Your task to perform on an android device: check data usage Image 0: 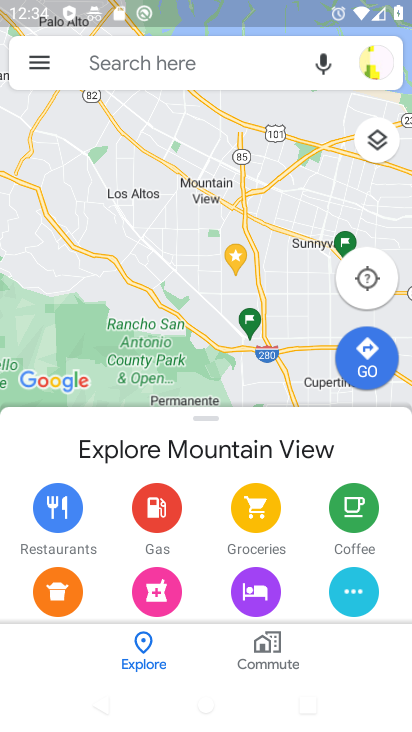
Step 0: press home button
Your task to perform on an android device: check data usage Image 1: 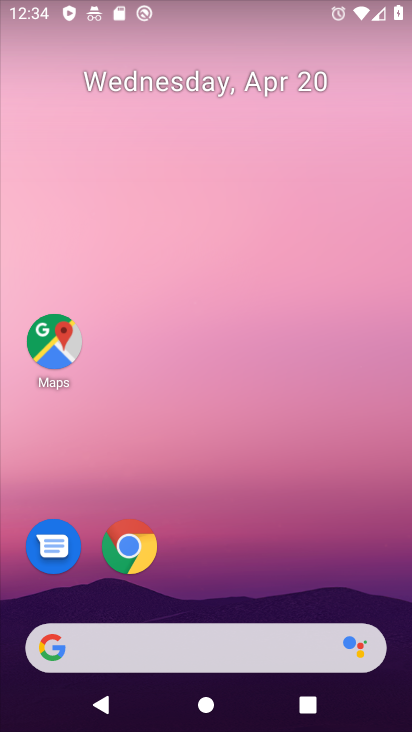
Step 1: drag from (218, 710) to (307, 65)
Your task to perform on an android device: check data usage Image 2: 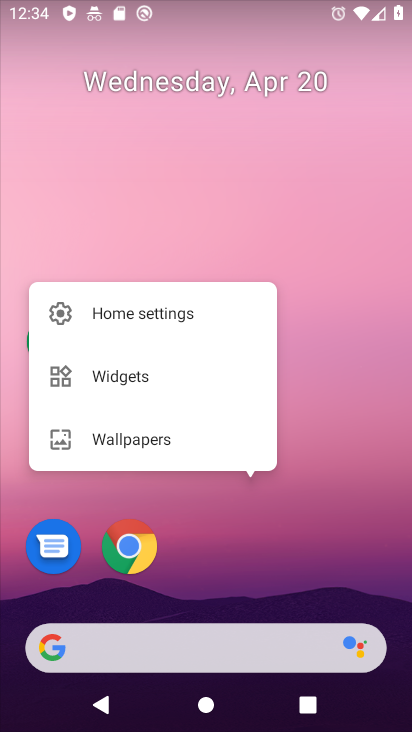
Step 2: click (244, 716)
Your task to perform on an android device: check data usage Image 3: 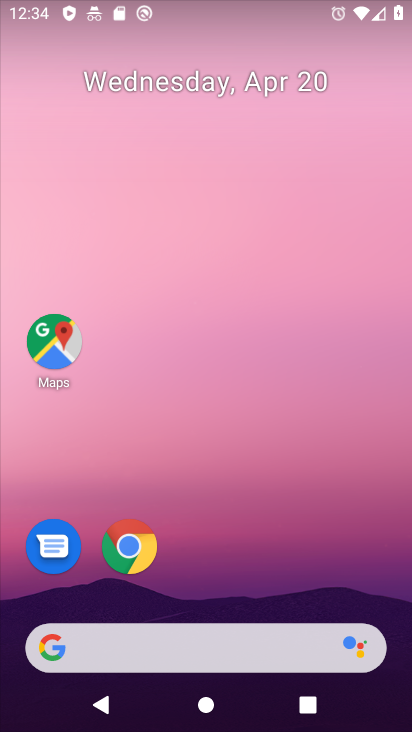
Step 3: drag from (253, 716) to (288, 10)
Your task to perform on an android device: check data usage Image 4: 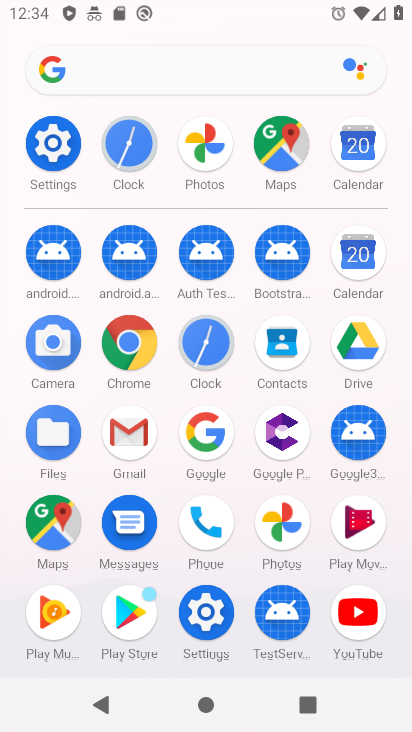
Step 4: click (44, 137)
Your task to perform on an android device: check data usage Image 5: 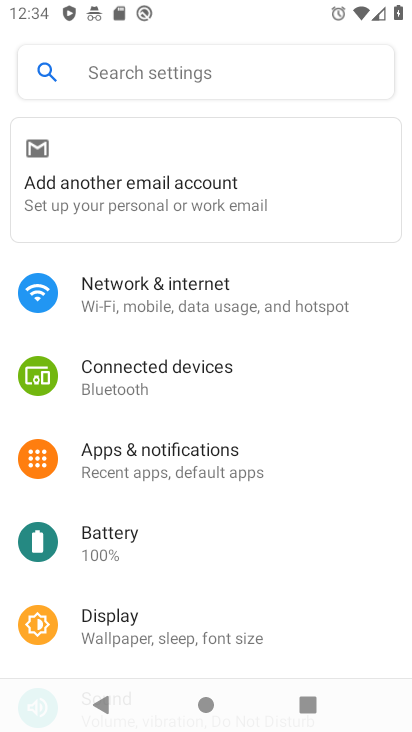
Step 5: click (315, 299)
Your task to perform on an android device: check data usage Image 6: 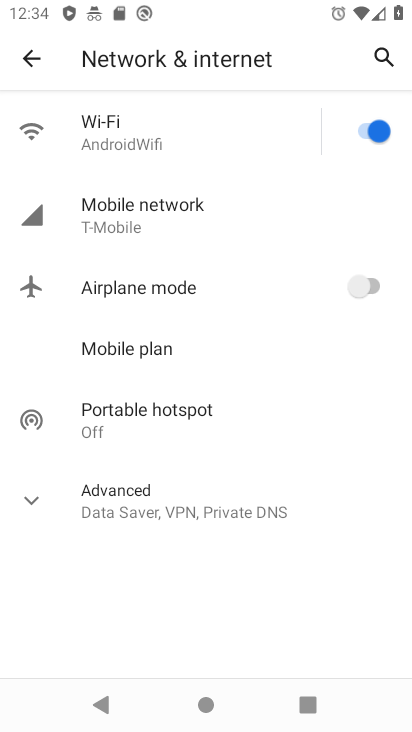
Step 6: click (224, 214)
Your task to perform on an android device: check data usage Image 7: 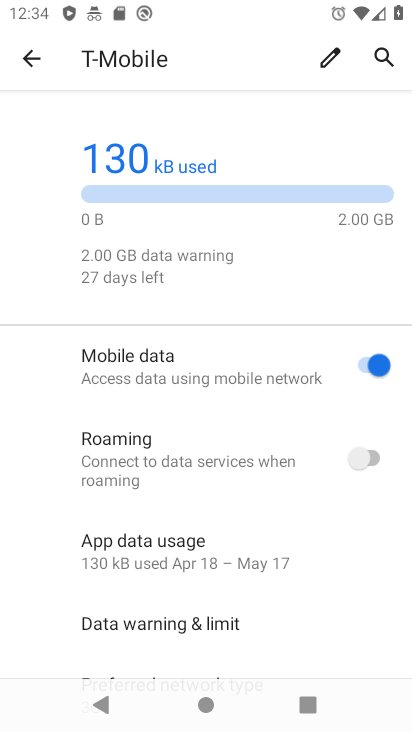
Step 7: task complete